Your task to perform on an android device: set an alarm Image 0: 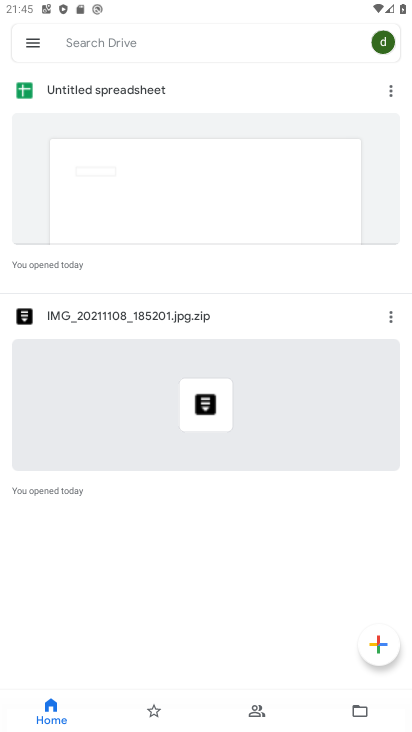
Step 0: press home button
Your task to perform on an android device: set an alarm Image 1: 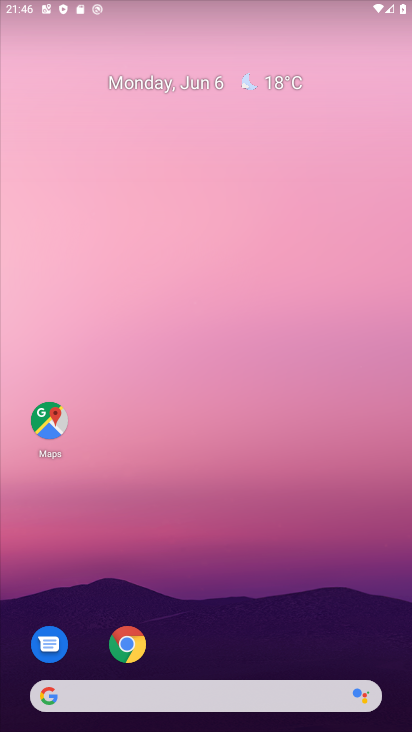
Step 1: drag from (354, 633) to (341, 212)
Your task to perform on an android device: set an alarm Image 2: 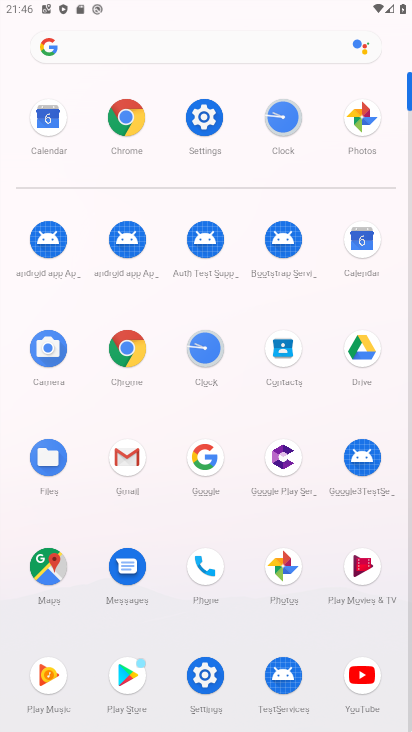
Step 2: click (198, 353)
Your task to perform on an android device: set an alarm Image 3: 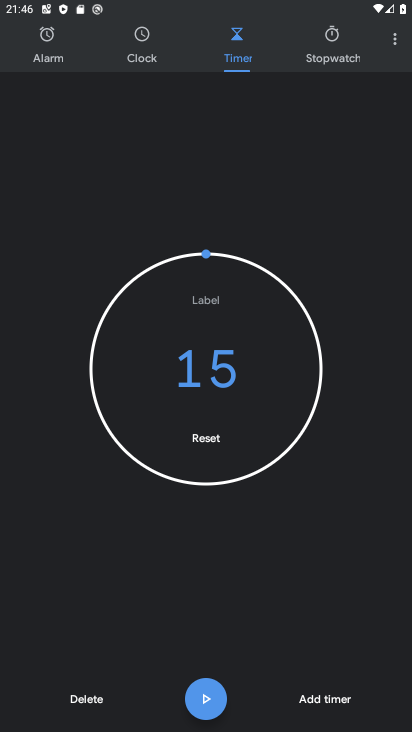
Step 3: click (65, 44)
Your task to perform on an android device: set an alarm Image 4: 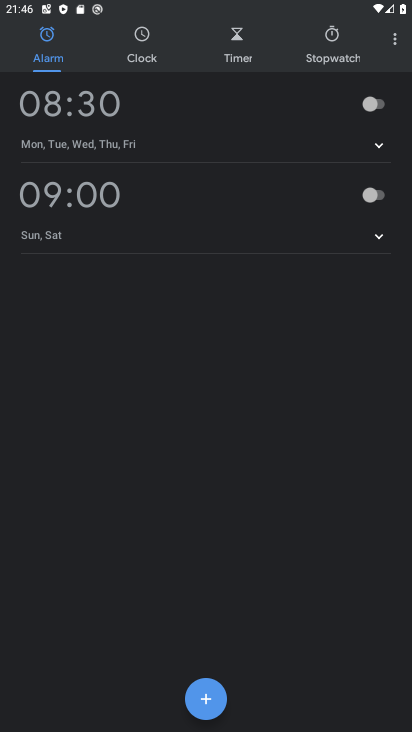
Step 4: click (205, 697)
Your task to perform on an android device: set an alarm Image 5: 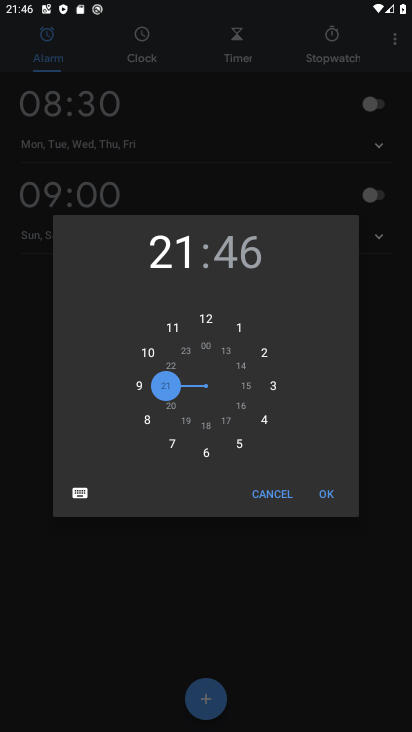
Step 5: click (335, 500)
Your task to perform on an android device: set an alarm Image 6: 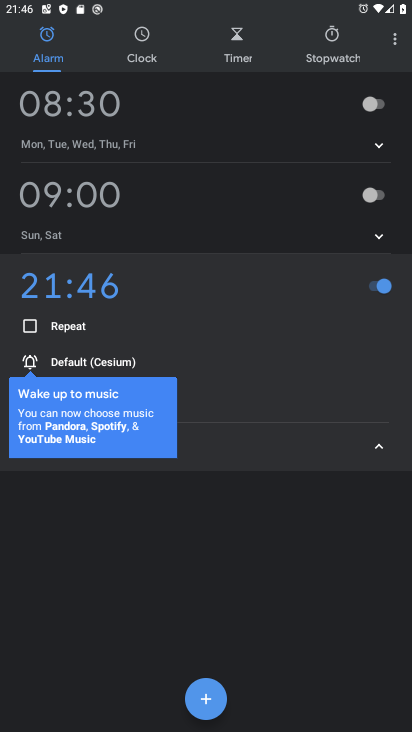
Step 6: task complete